Your task to perform on an android device: Open wifi settings Image 0: 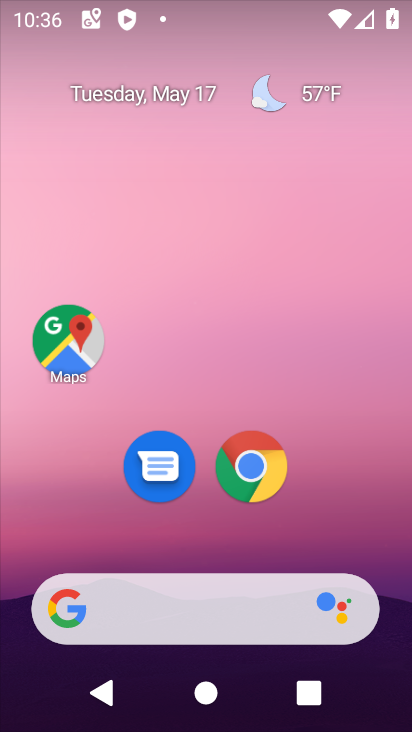
Step 0: drag from (222, 554) to (362, 332)
Your task to perform on an android device: Open wifi settings Image 1: 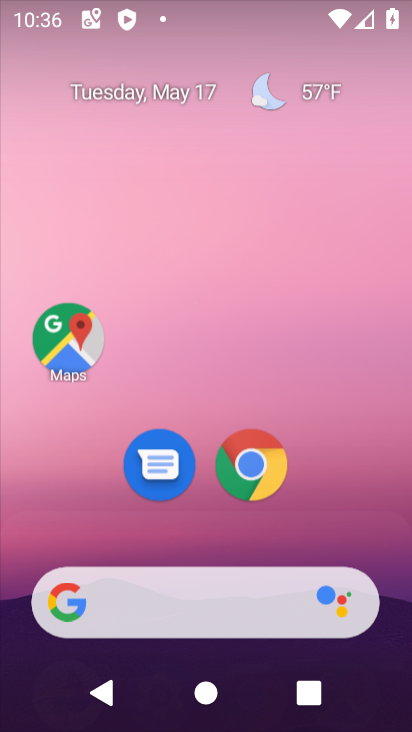
Step 1: click (130, 182)
Your task to perform on an android device: Open wifi settings Image 2: 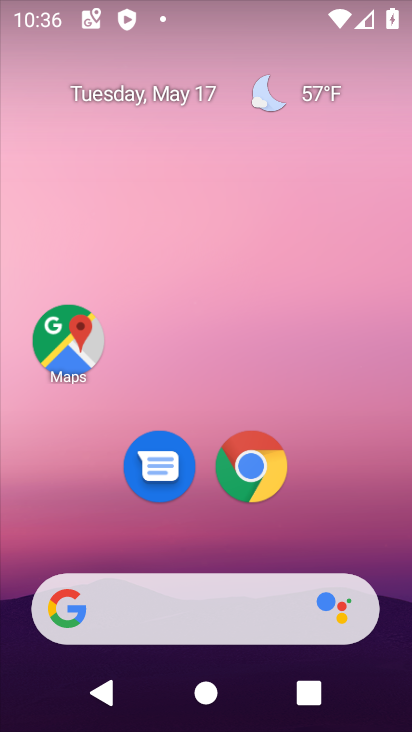
Step 2: drag from (226, 550) to (285, 26)
Your task to perform on an android device: Open wifi settings Image 3: 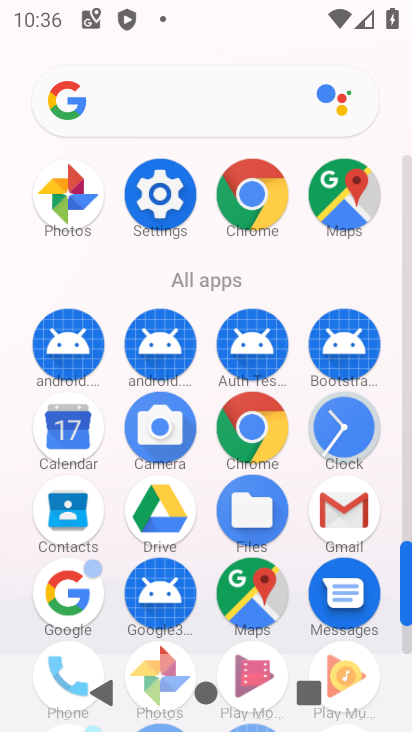
Step 3: click (149, 190)
Your task to perform on an android device: Open wifi settings Image 4: 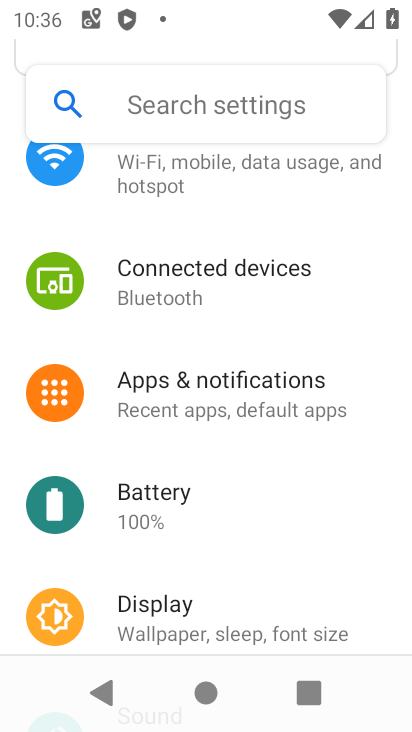
Step 4: drag from (229, 252) to (217, 552)
Your task to perform on an android device: Open wifi settings Image 5: 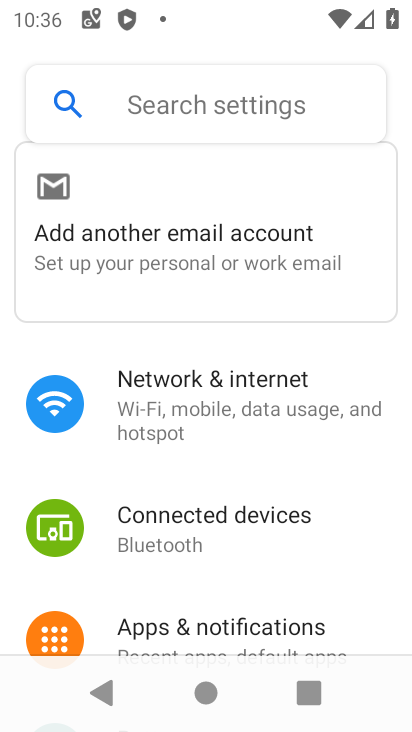
Step 5: click (199, 364)
Your task to perform on an android device: Open wifi settings Image 6: 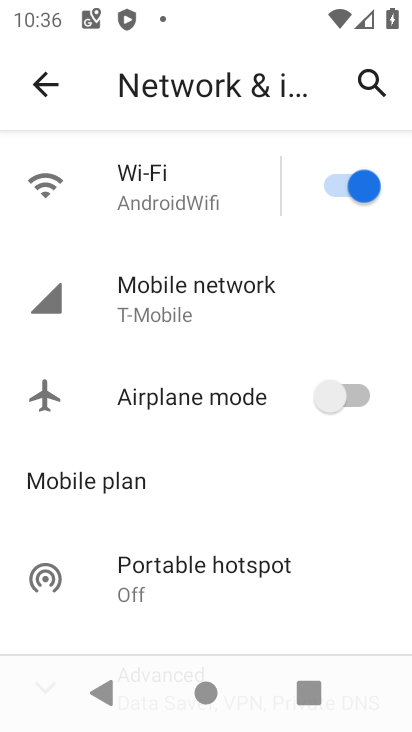
Step 6: click (190, 189)
Your task to perform on an android device: Open wifi settings Image 7: 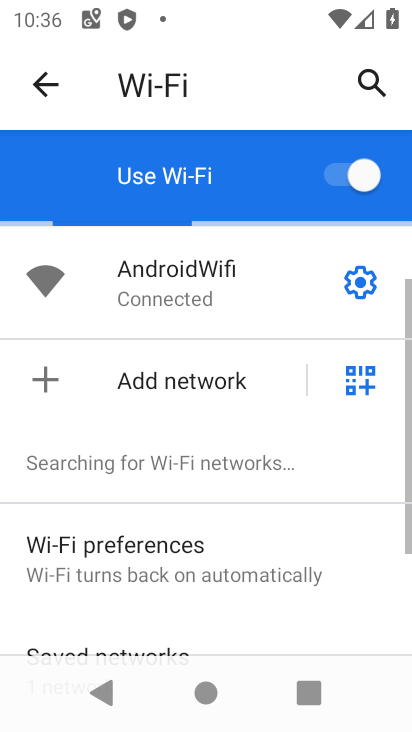
Step 7: task complete